Your task to perform on an android device: check out phone information Image 0: 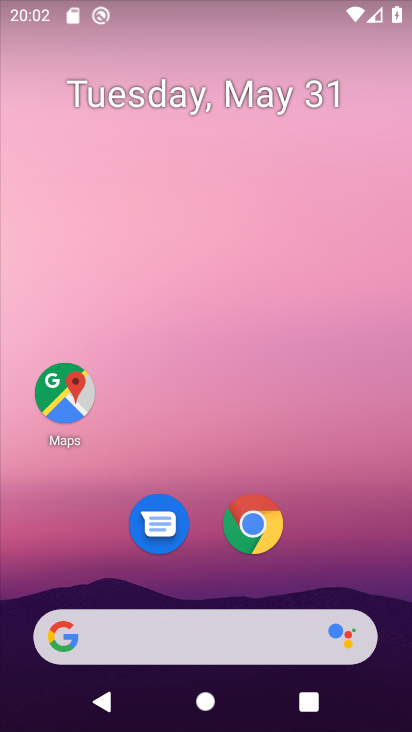
Step 0: drag from (292, 196) to (328, 0)
Your task to perform on an android device: check out phone information Image 1: 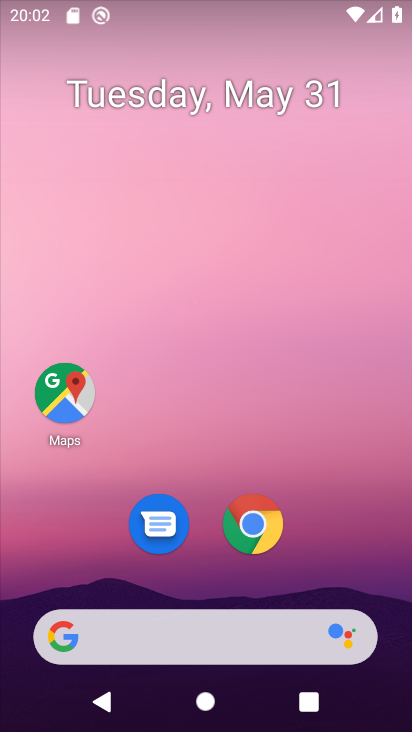
Step 1: drag from (216, 566) to (287, 0)
Your task to perform on an android device: check out phone information Image 2: 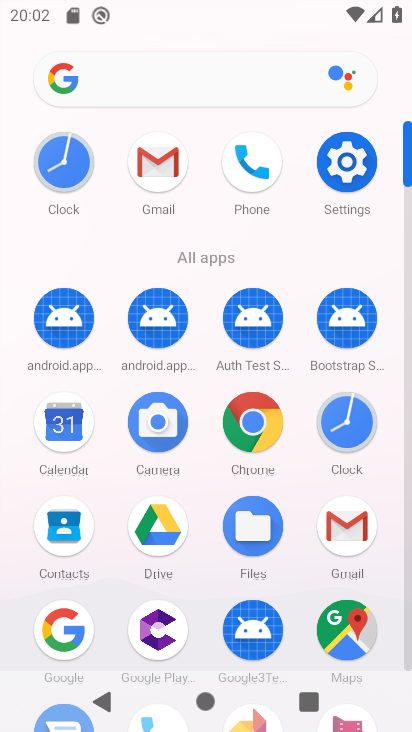
Step 2: click (247, 164)
Your task to perform on an android device: check out phone information Image 3: 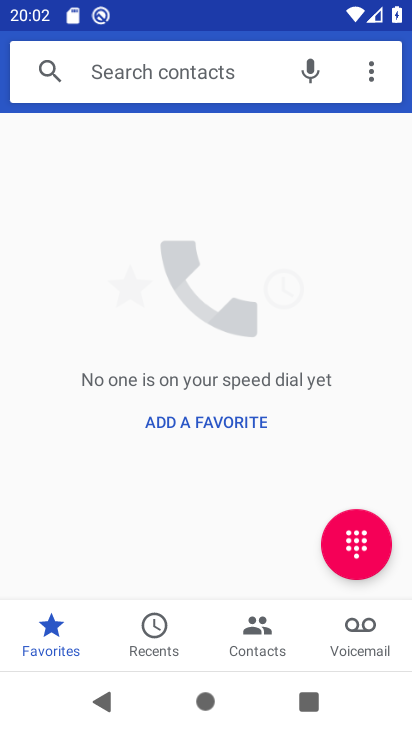
Step 3: click (369, 74)
Your task to perform on an android device: check out phone information Image 4: 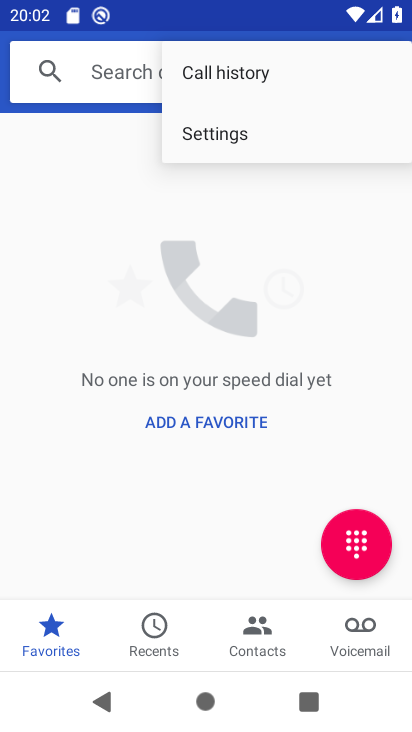
Step 4: click (310, 133)
Your task to perform on an android device: check out phone information Image 5: 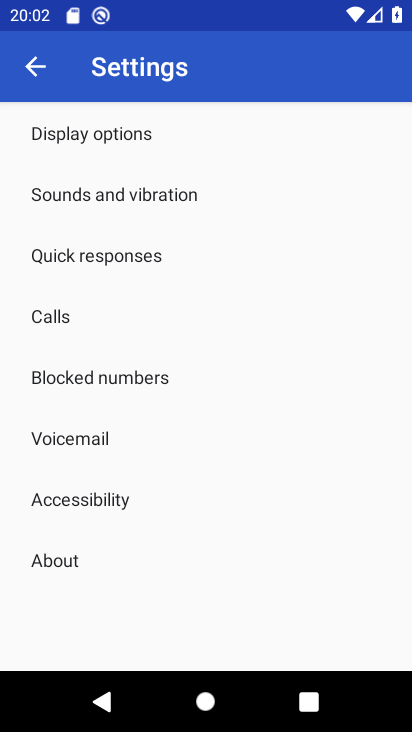
Step 5: click (72, 561)
Your task to perform on an android device: check out phone information Image 6: 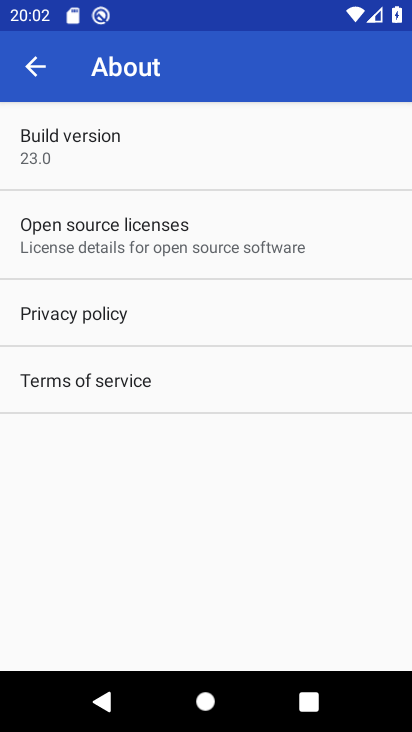
Step 6: task complete